Your task to perform on an android device: change notification settings in the gmail app Image 0: 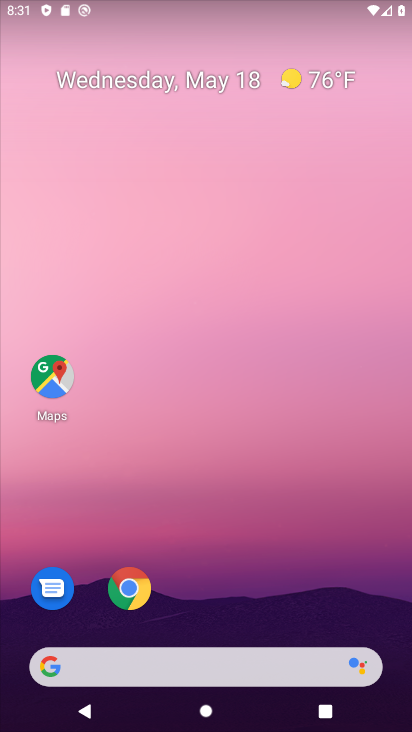
Step 0: drag from (228, 600) to (243, 36)
Your task to perform on an android device: change notification settings in the gmail app Image 1: 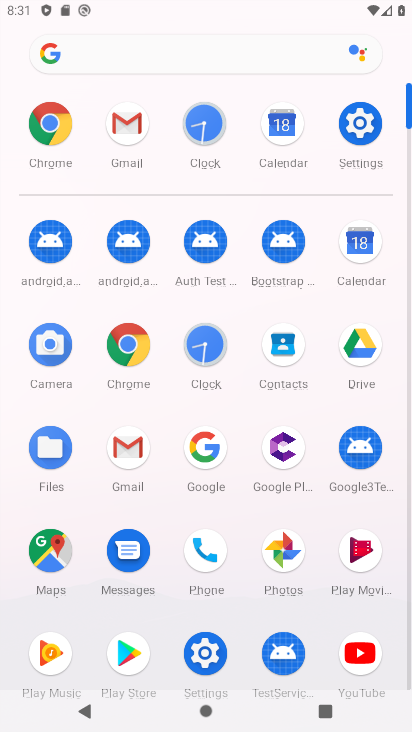
Step 1: click (123, 160)
Your task to perform on an android device: change notification settings in the gmail app Image 2: 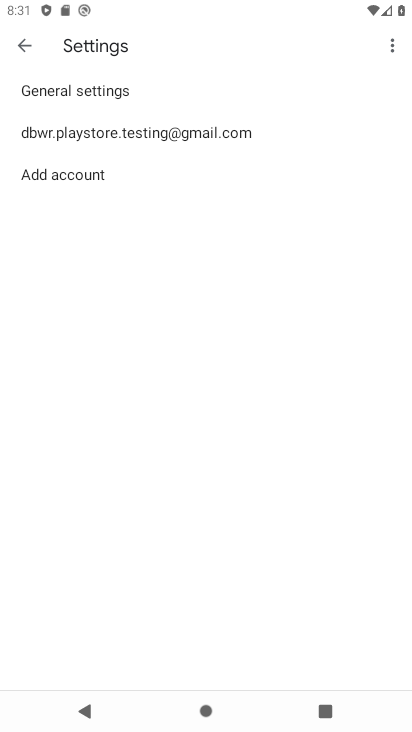
Step 2: click (156, 121)
Your task to perform on an android device: change notification settings in the gmail app Image 3: 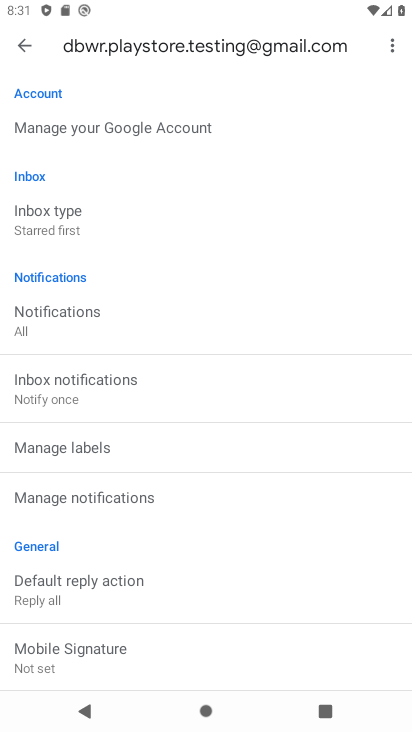
Step 3: click (105, 488)
Your task to perform on an android device: change notification settings in the gmail app Image 4: 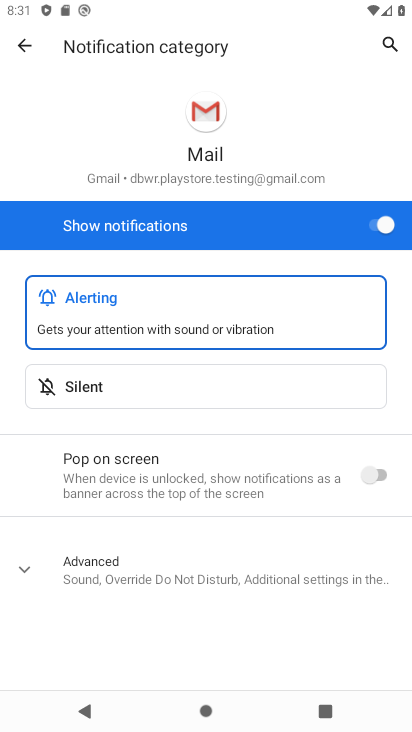
Step 4: click (326, 235)
Your task to perform on an android device: change notification settings in the gmail app Image 5: 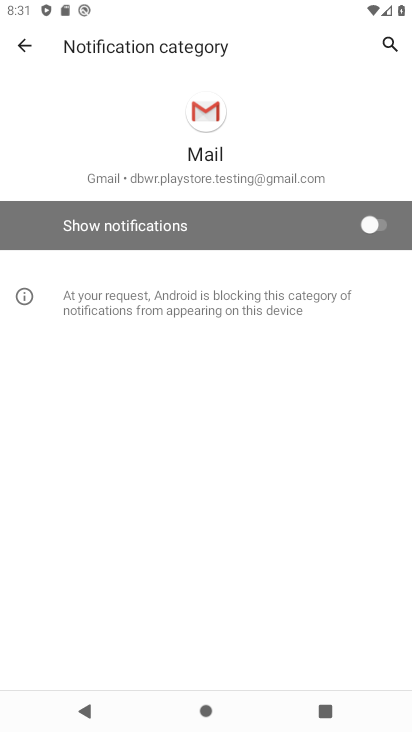
Step 5: task complete